Your task to perform on an android device: clear history in the chrome app Image 0: 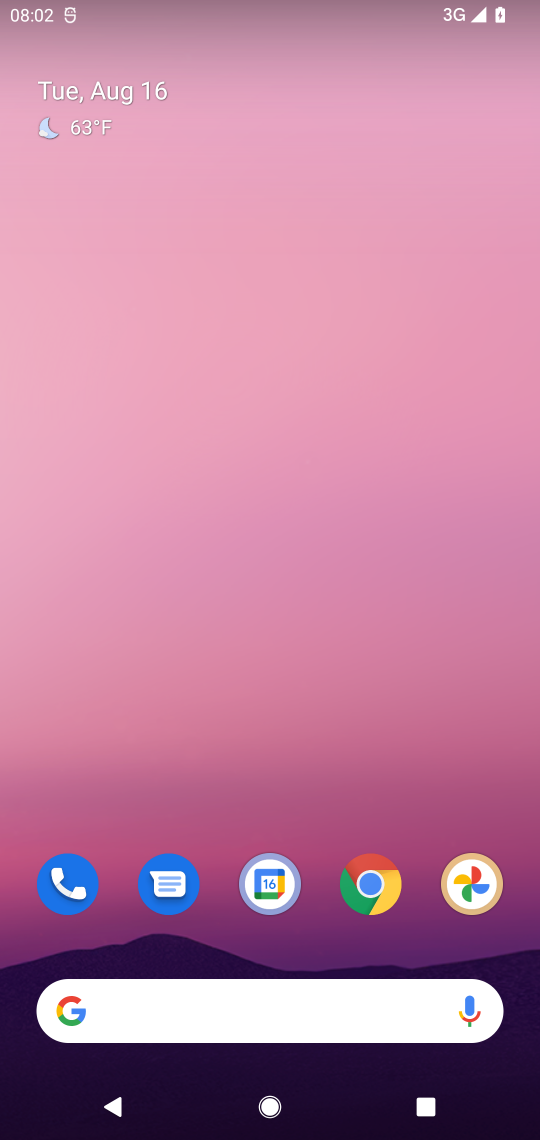
Step 0: press home button
Your task to perform on an android device: clear history in the chrome app Image 1: 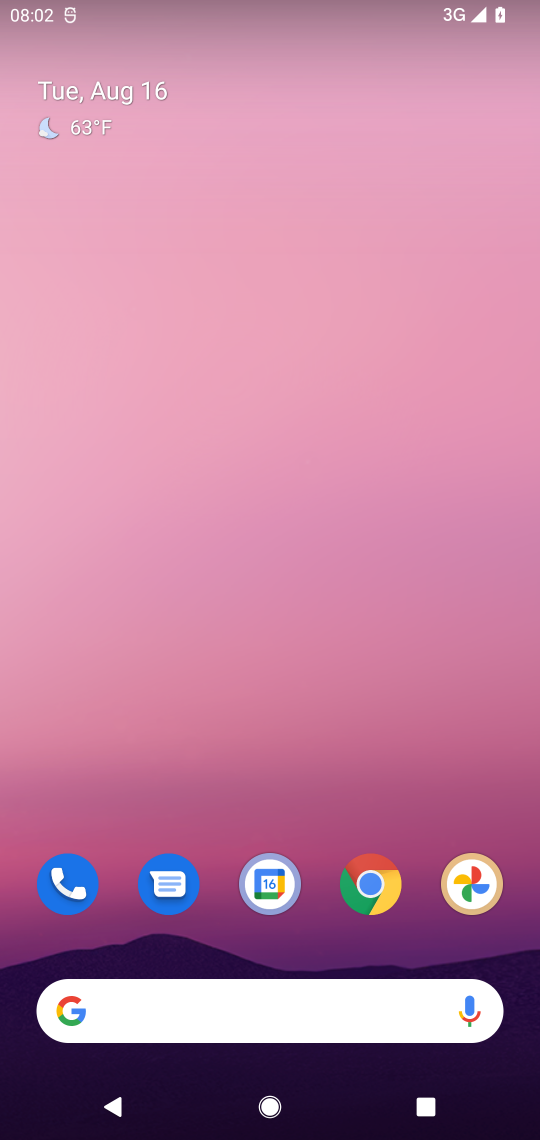
Step 1: click (373, 883)
Your task to perform on an android device: clear history in the chrome app Image 2: 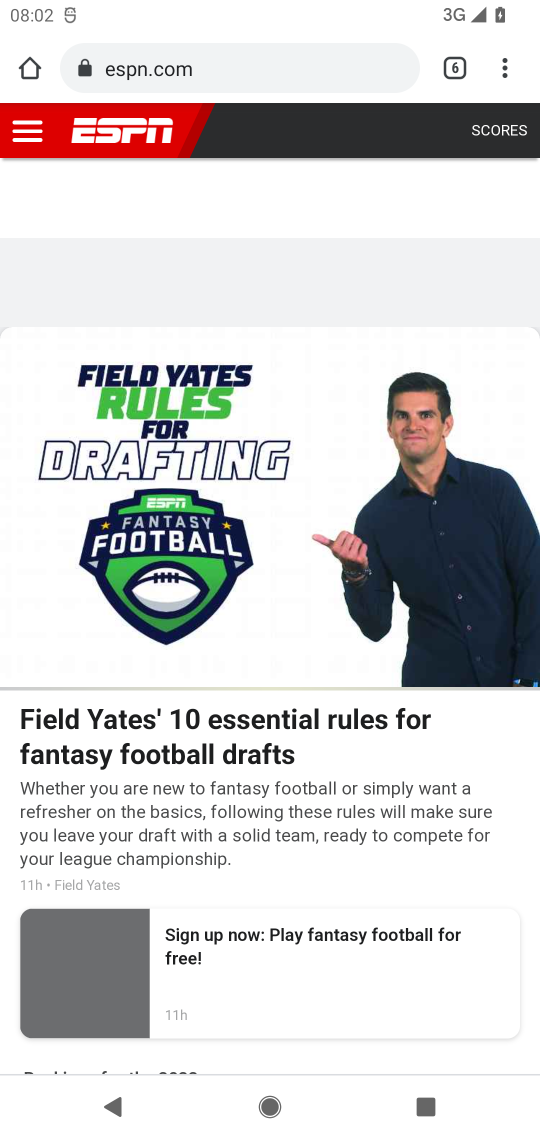
Step 2: drag from (507, 60) to (345, 831)
Your task to perform on an android device: clear history in the chrome app Image 3: 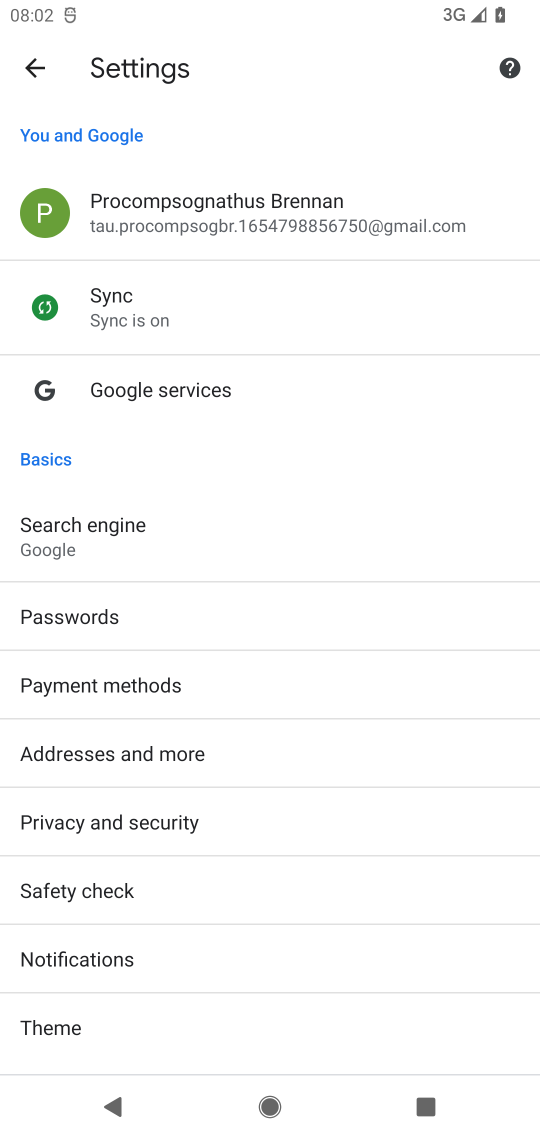
Step 3: click (111, 812)
Your task to perform on an android device: clear history in the chrome app Image 4: 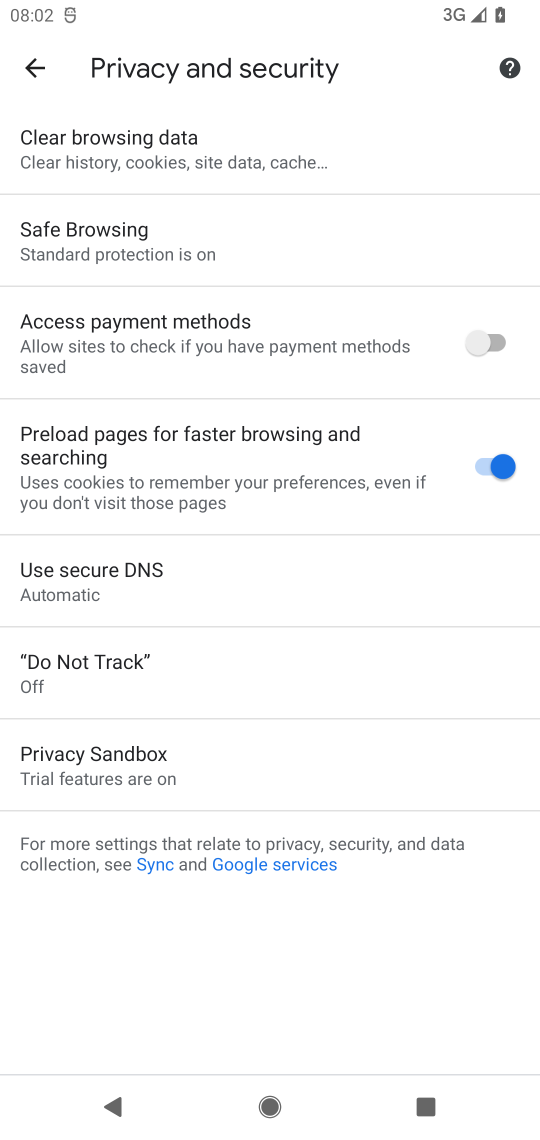
Step 4: click (264, 154)
Your task to perform on an android device: clear history in the chrome app Image 5: 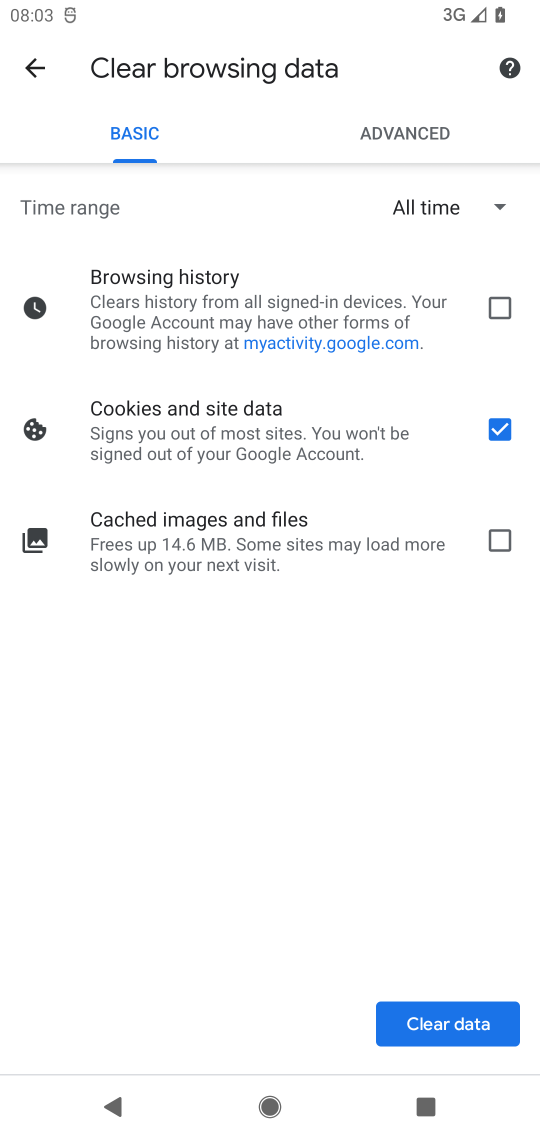
Step 5: click (513, 304)
Your task to perform on an android device: clear history in the chrome app Image 6: 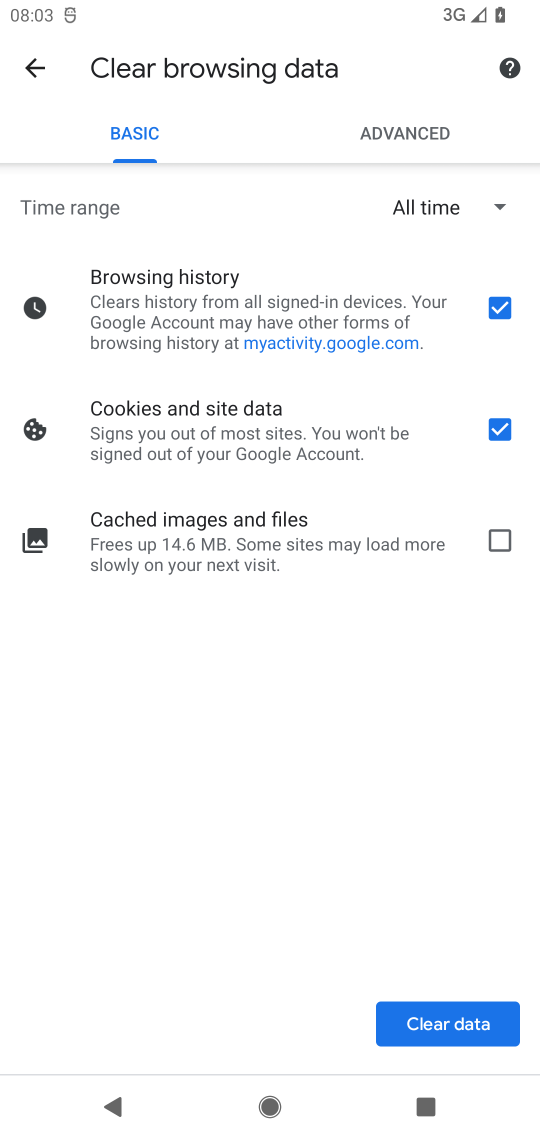
Step 6: click (503, 423)
Your task to perform on an android device: clear history in the chrome app Image 7: 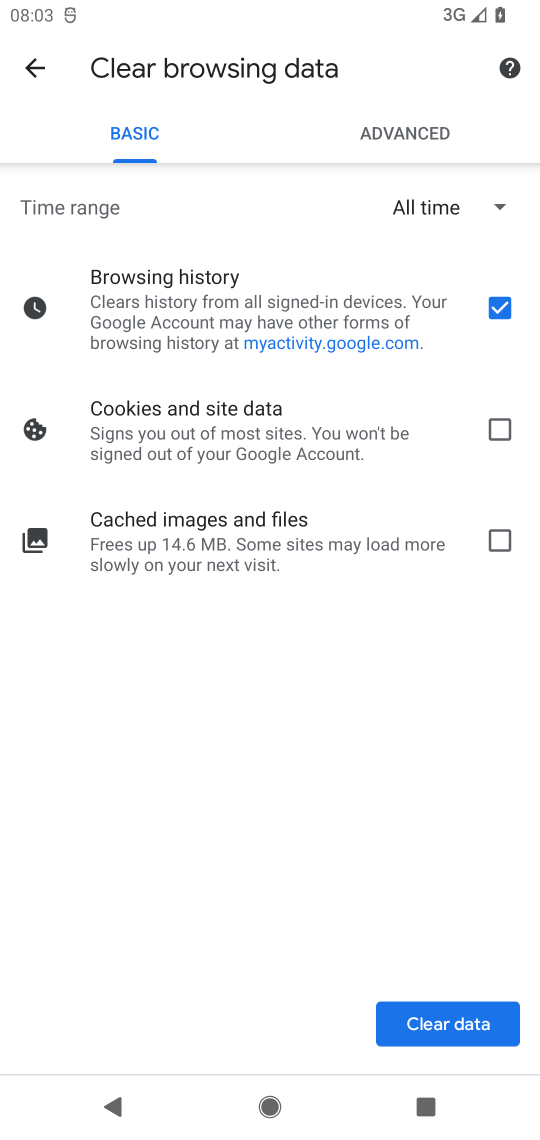
Step 7: click (457, 1033)
Your task to perform on an android device: clear history in the chrome app Image 8: 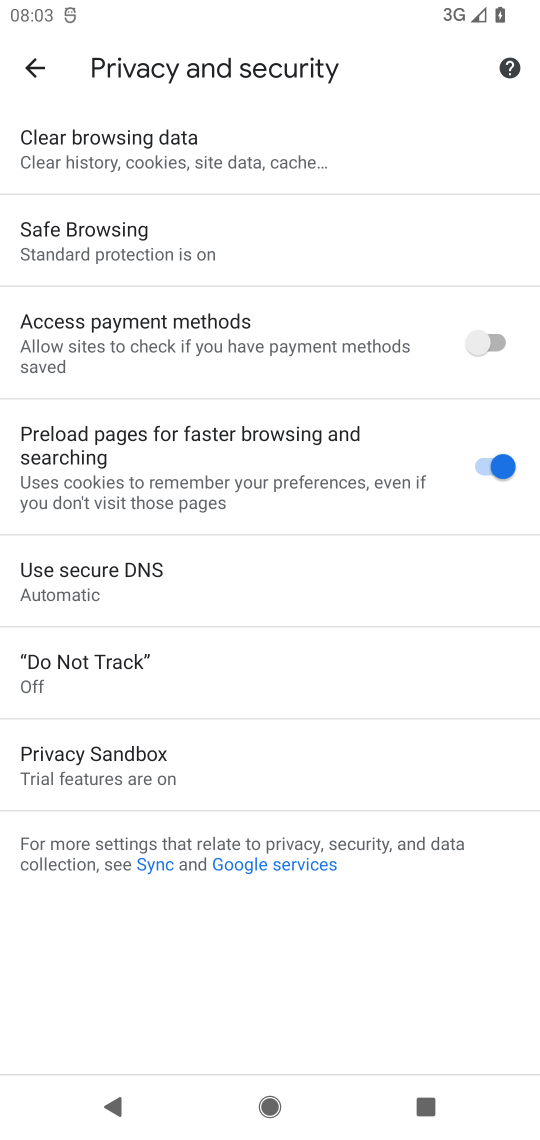
Step 8: task complete